Your task to perform on an android device: choose inbox layout in the gmail app Image 0: 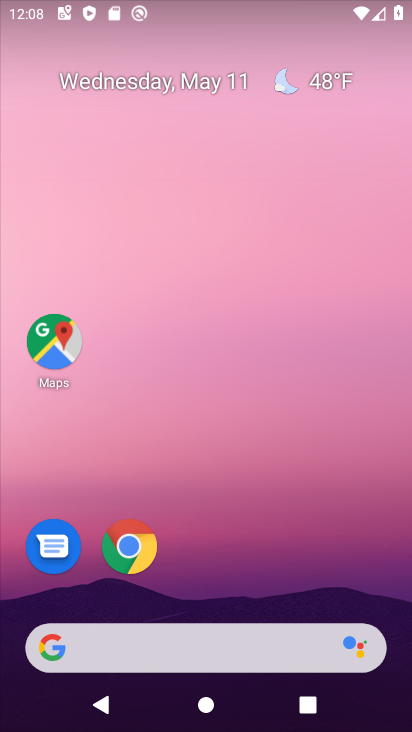
Step 0: press home button
Your task to perform on an android device: choose inbox layout in the gmail app Image 1: 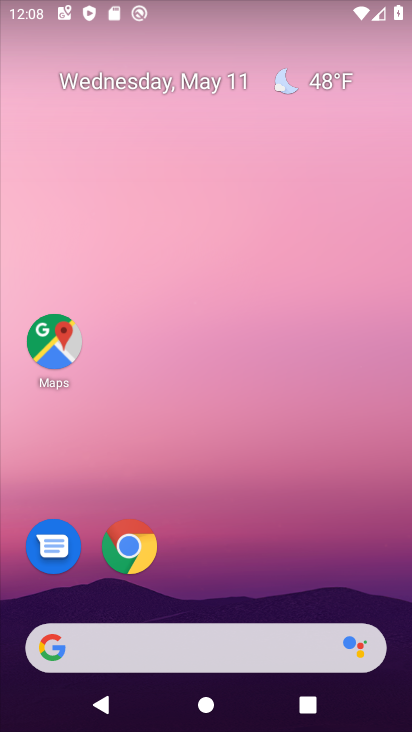
Step 1: drag from (165, 641) to (277, 227)
Your task to perform on an android device: choose inbox layout in the gmail app Image 2: 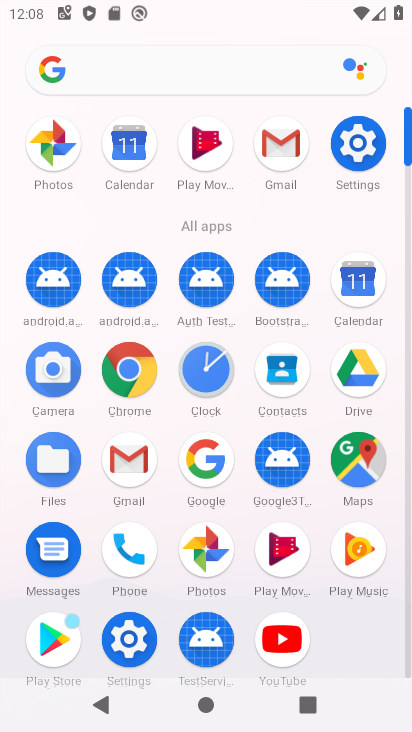
Step 2: click (286, 151)
Your task to perform on an android device: choose inbox layout in the gmail app Image 3: 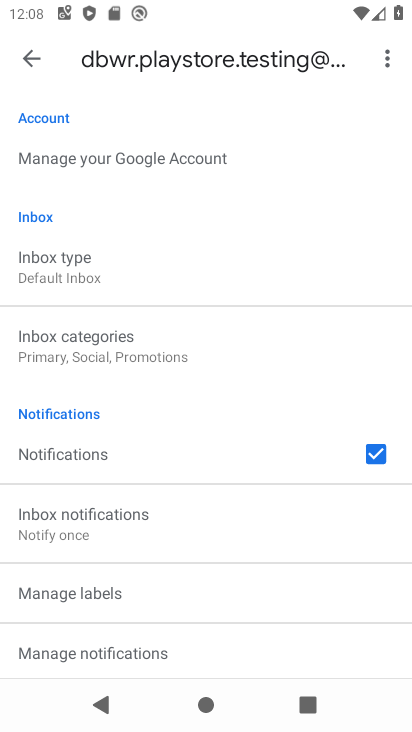
Step 3: click (56, 278)
Your task to perform on an android device: choose inbox layout in the gmail app Image 4: 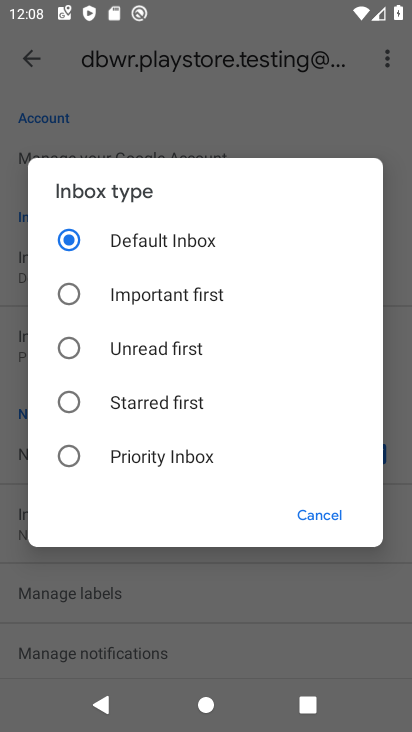
Step 4: click (67, 345)
Your task to perform on an android device: choose inbox layout in the gmail app Image 5: 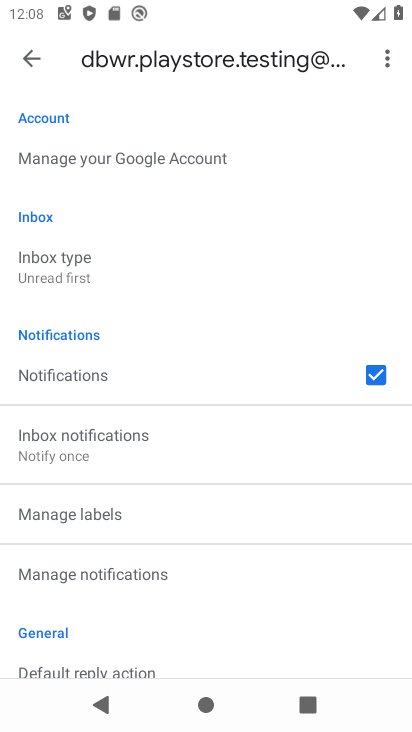
Step 5: task complete